Your task to perform on an android device: set the timer Image 0: 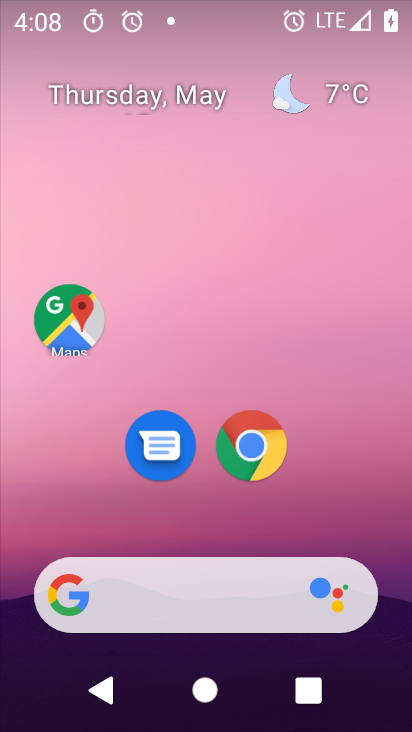
Step 0: drag from (344, 464) to (387, 9)
Your task to perform on an android device: set the timer Image 1: 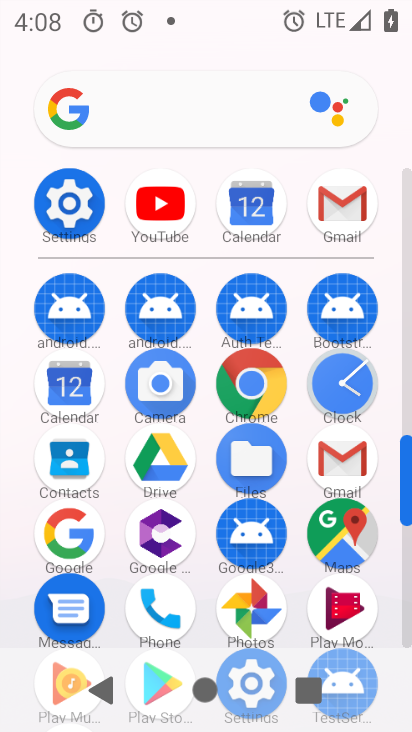
Step 1: click (343, 389)
Your task to perform on an android device: set the timer Image 2: 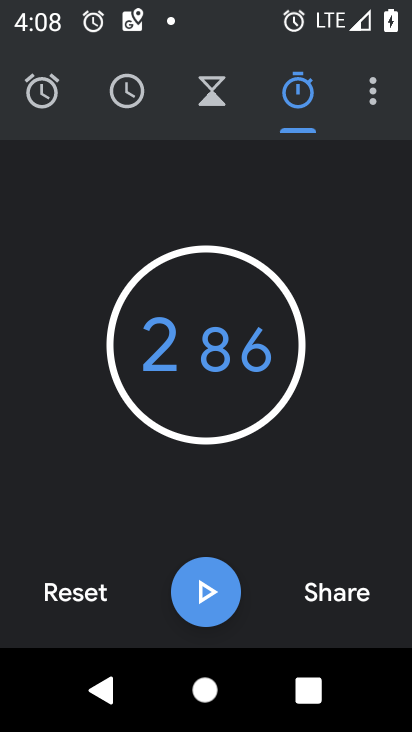
Step 2: click (214, 102)
Your task to perform on an android device: set the timer Image 3: 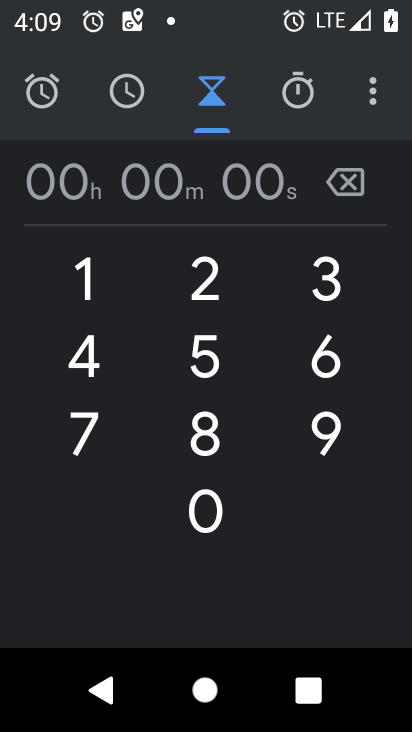
Step 3: click (208, 356)
Your task to perform on an android device: set the timer Image 4: 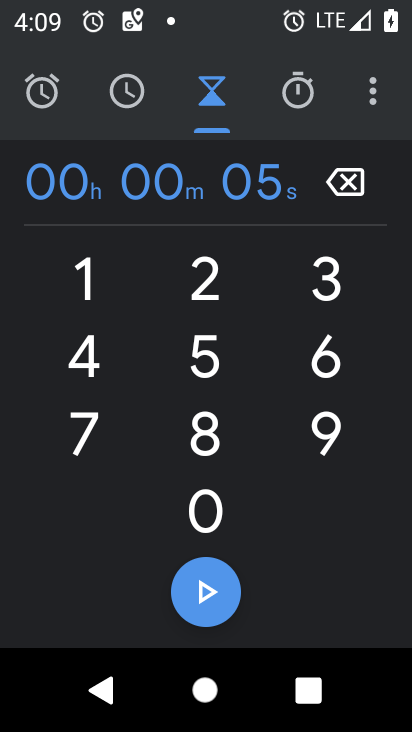
Step 4: click (209, 517)
Your task to perform on an android device: set the timer Image 5: 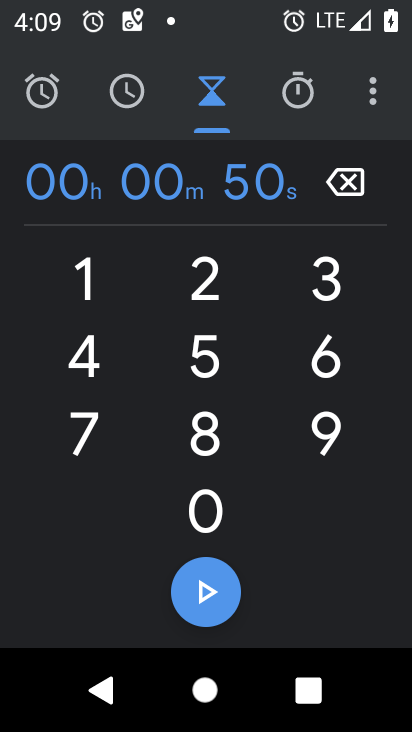
Step 5: click (214, 600)
Your task to perform on an android device: set the timer Image 6: 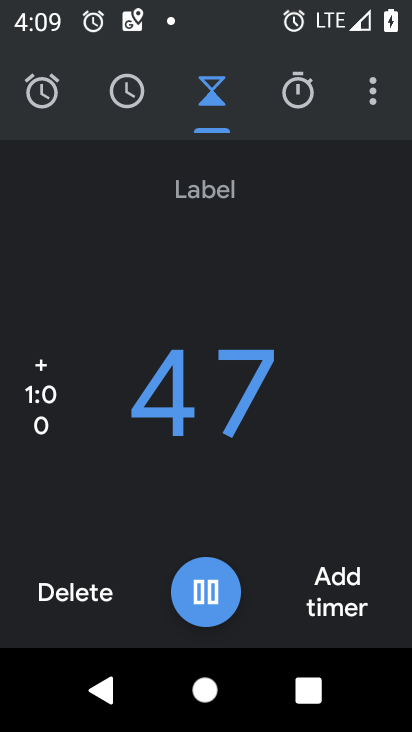
Step 6: task complete